Your task to perform on an android device: check the backup settings in the google photos Image 0: 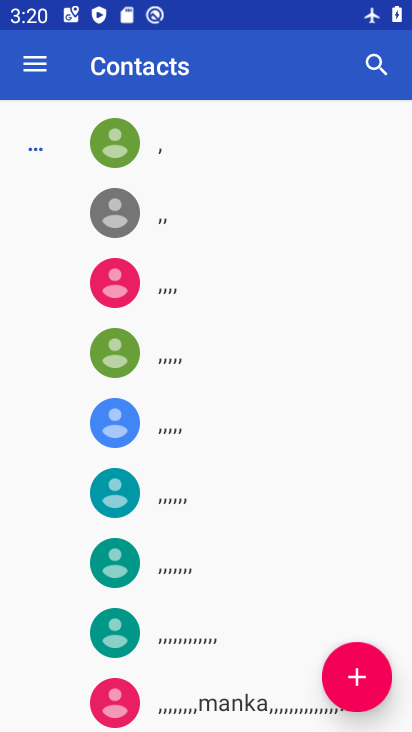
Step 0: press home button
Your task to perform on an android device: check the backup settings in the google photos Image 1: 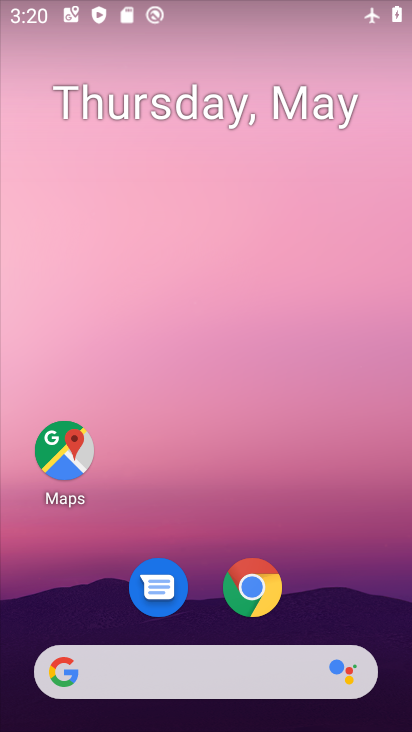
Step 1: drag from (198, 627) to (261, 197)
Your task to perform on an android device: check the backup settings in the google photos Image 2: 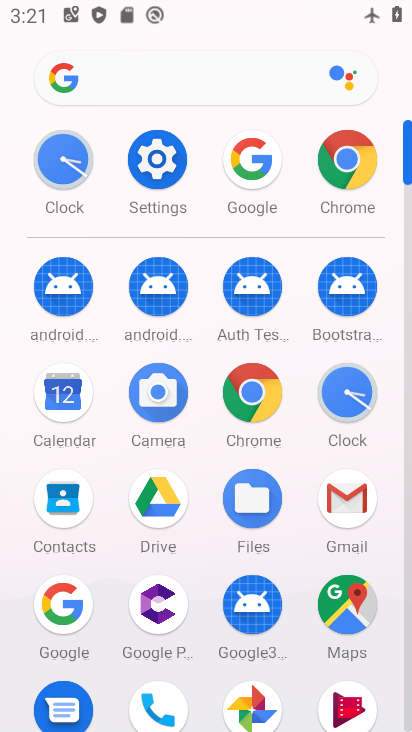
Step 2: drag from (207, 475) to (205, 284)
Your task to perform on an android device: check the backup settings in the google photos Image 3: 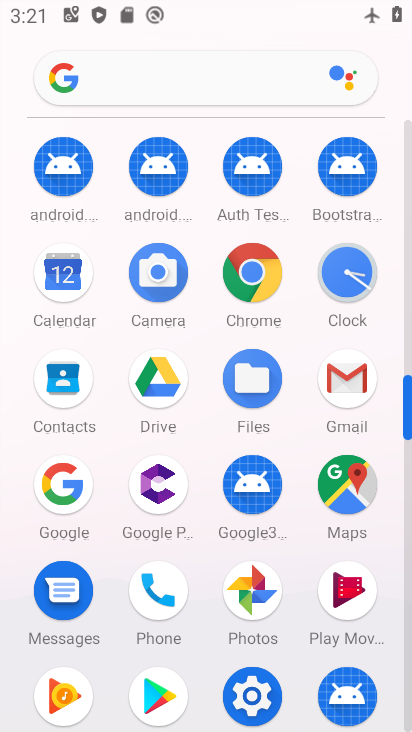
Step 3: click (249, 606)
Your task to perform on an android device: check the backup settings in the google photos Image 4: 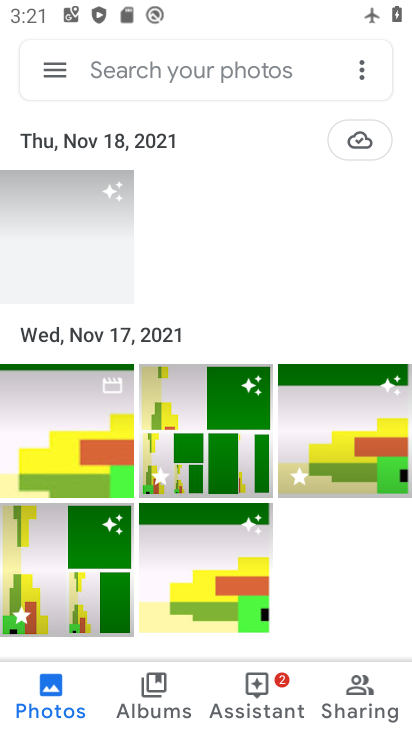
Step 4: click (40, 69)
Your task to perform on an android device: check the backup settings in the google photos Image 5: 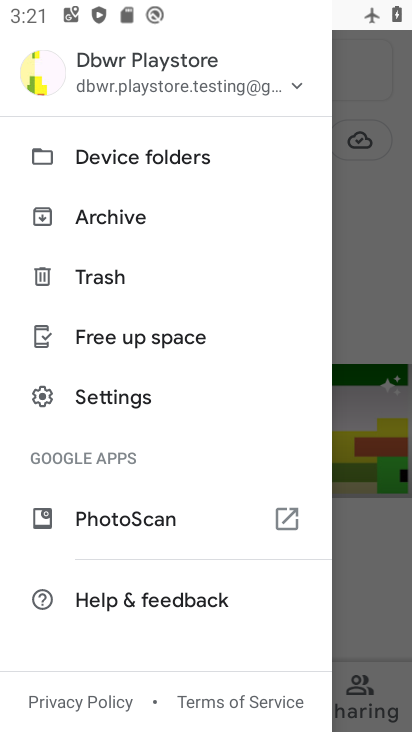
Step 5: click (118, 396)
Your task to perform on an android device: check the backup settings in the google photos Image 6: 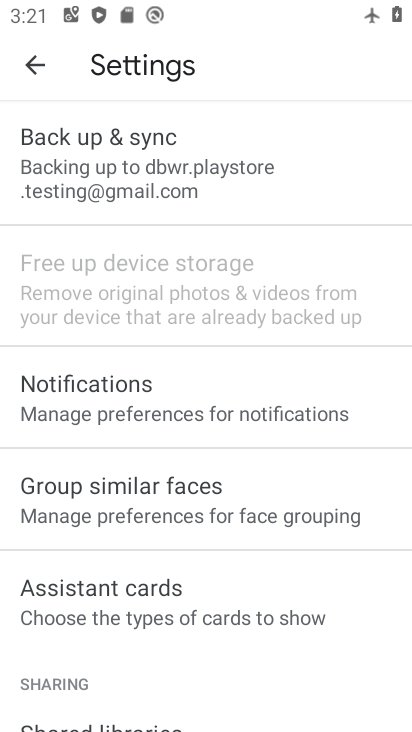
Step 6: click (129, 184)
Your task to perform on an android device: check the backup settings in the google photos Image 7: 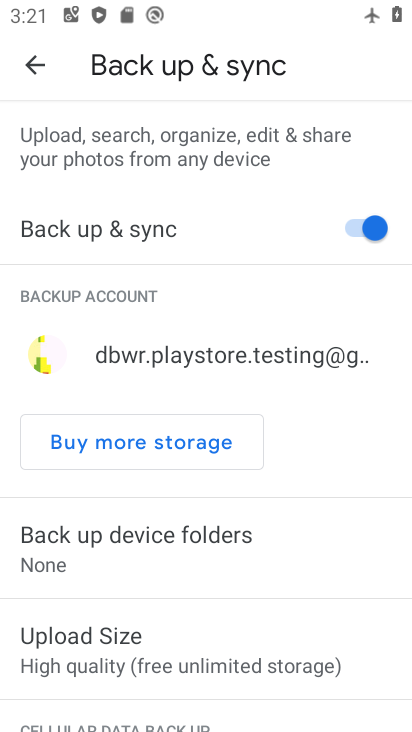
Step 7: task complete